Your task to perform on an android device: turn off smart reply in the gmail app Image 0: 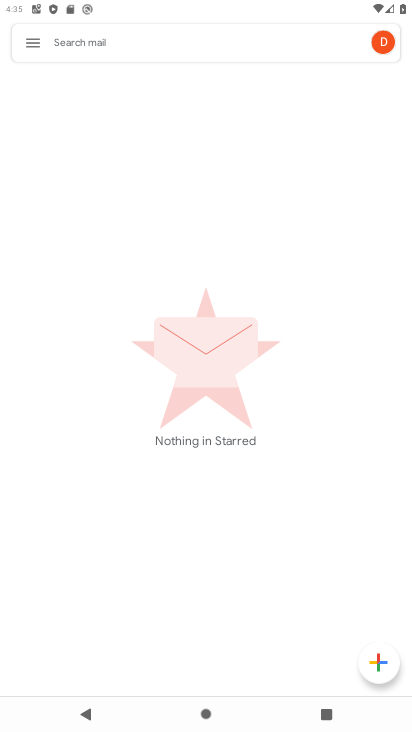
Step 0: click (40, 39)
Your task to perform on an android device: turn off smart reply in the gmail app Image 1: 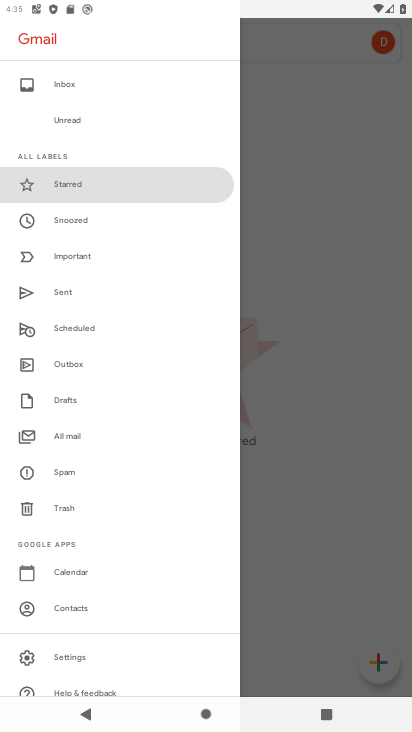
Step 1: click (68, 653)
Your task to perform on an android device: turn off smart reply in the gmail app Image 2: 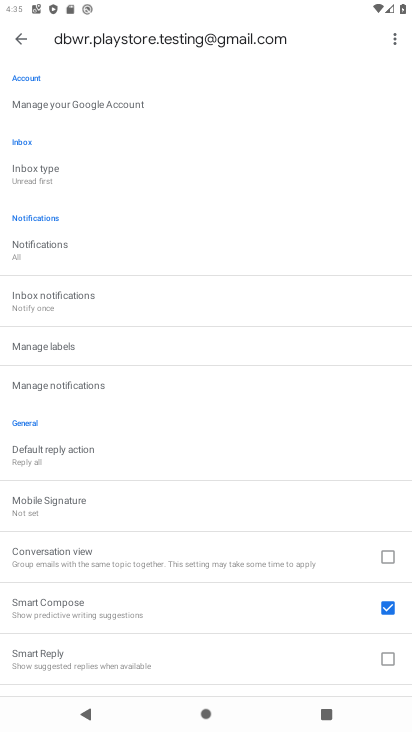
Step 2: task complete